Your task to perform on an android device: Search for vegetarian restaurants on Maps Image 0: 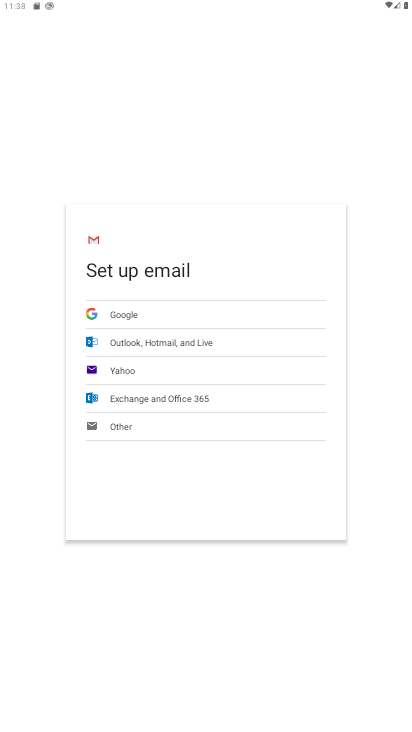
Step 0: press home button
Your task to perform on an android device: Search for vegetarian restaurants on Maps Image 1: 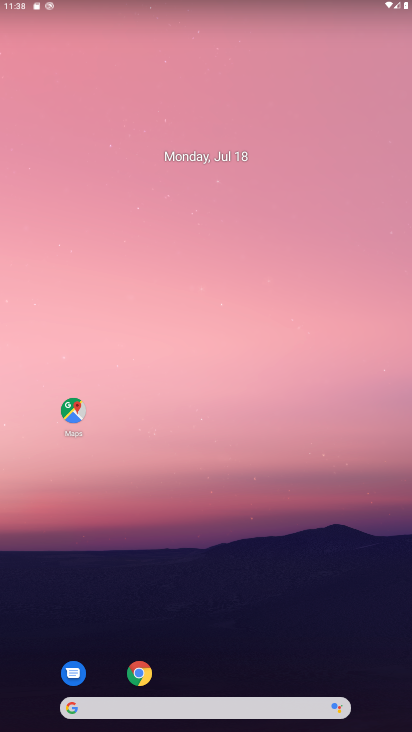
Step 1: drag from (264, 659) to (212, 134)
Your task to perform on an android device: Search for vegetarian restaurants on Maps Image 2: 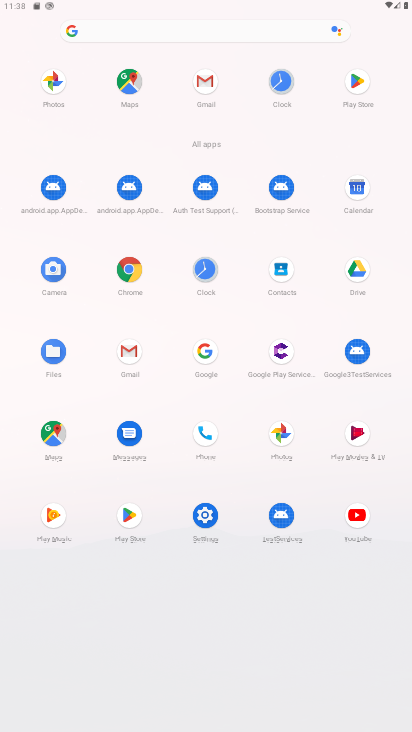
Step 2: click (134, 86)
Your task to perform on an android device: Search for vegetarian restaurants on Maps Image 3: 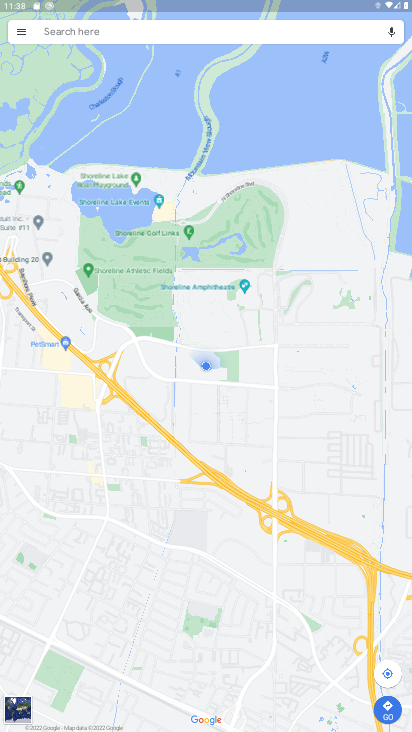
Step 3: click (164, 32)
Your task to perform on an android device: Search for vegetarian restaurants on Maps Image 4: 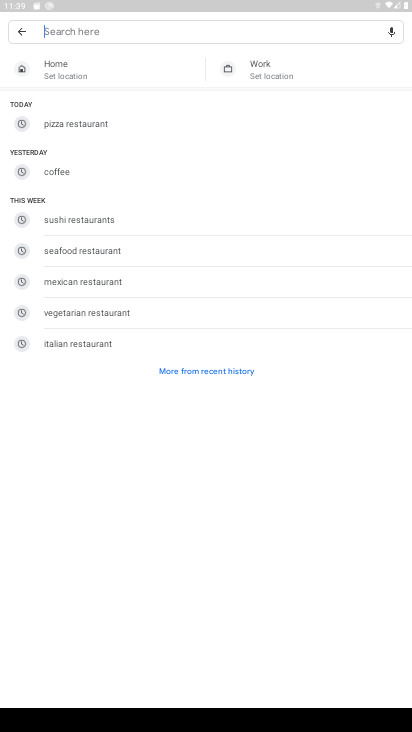
Step 4: click (112, 316)
Your task to perform on an android device: Search for vegetarian restaurants on Maps Image 5: 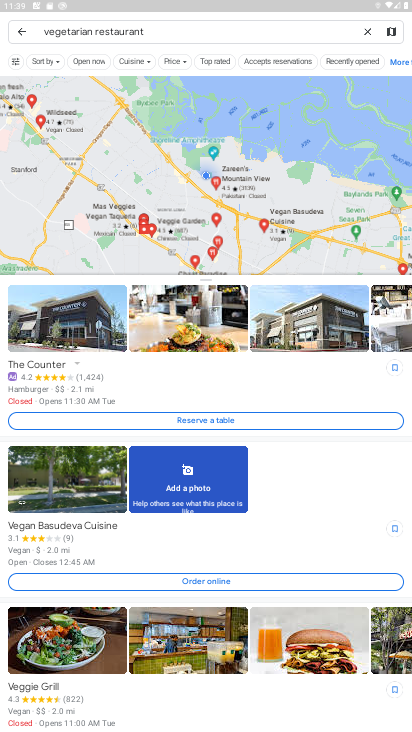
Step 5: task complete